Your task to perform on an android device: open the mobile data screen to see how much data has been used Image 0: 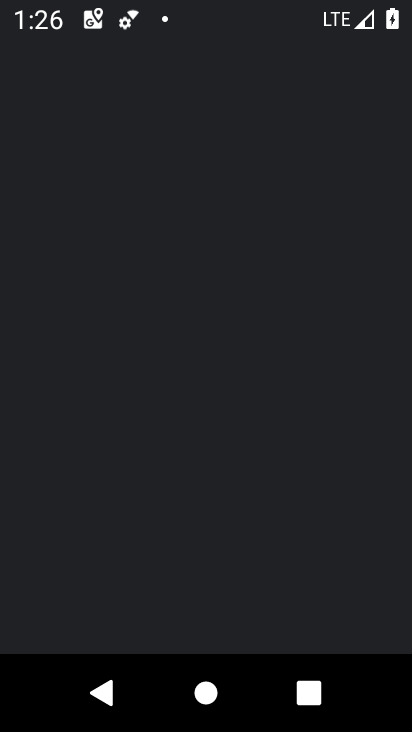
Step 0: drag from (362, 478) to (359, 60)
Your task to perform on an android device: open the mobile data screen to see how much data has been used Image 1: 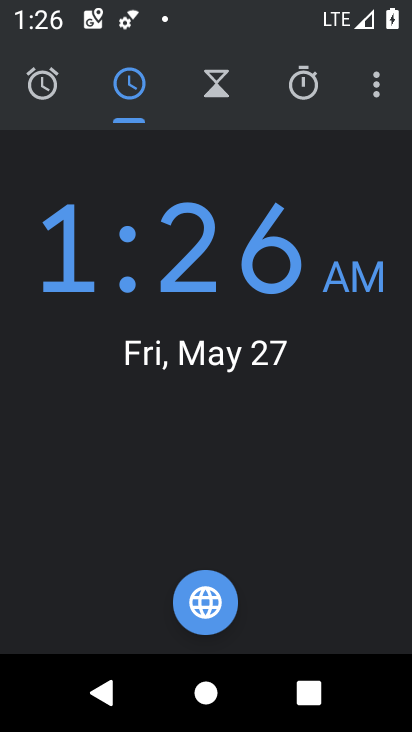
Step 1: press home button
Your task to perform on an android device: open the mobile data screen to see how much data has been used Image 2: 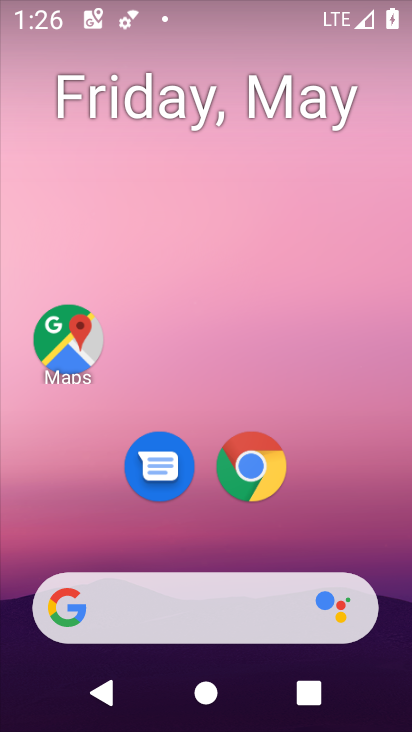
Step 2: drag from (338, 555) to (337, 81)
Your task to perform on an android device: open the mobile data screen to see how much data has been used Image 3: 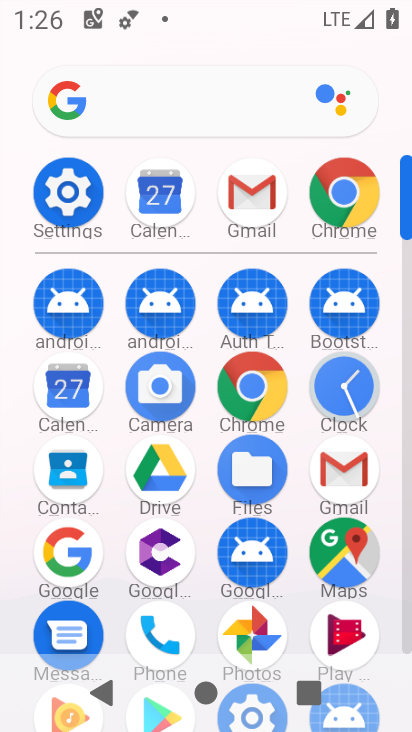
Step 3: click (337, 200)
Your task to perform on an android device: open the mobile data screen to see how much data has been used Image 4: 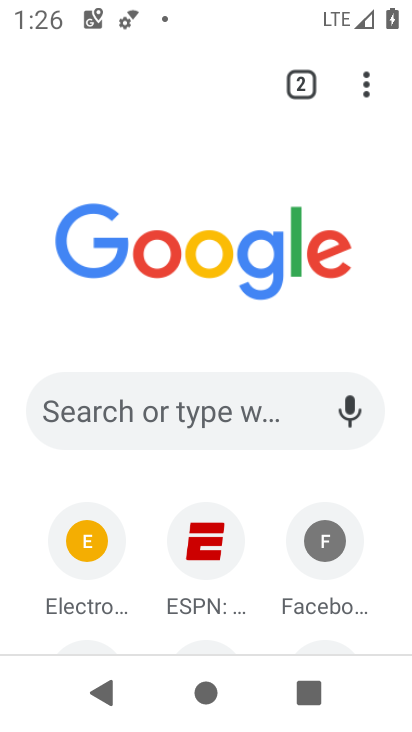
Step 4: press back button
Your task to perform on an android device: open the mobile data screen to see how much data has been used Image 5: 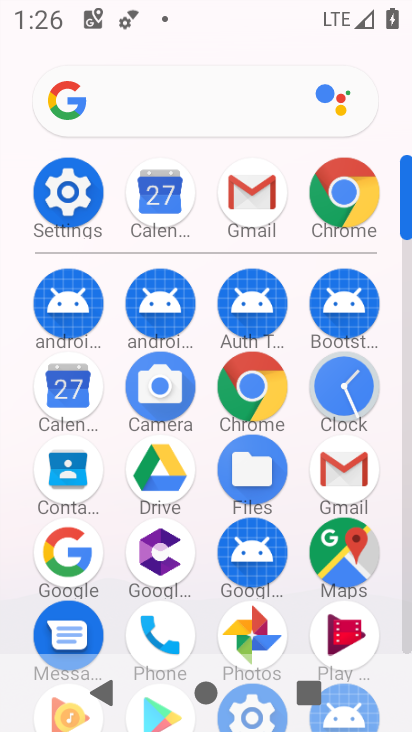
Step 5: click (89, 196)
Your task to perform on an android device: open the mobile data screen to see how much data has been used Image 6: 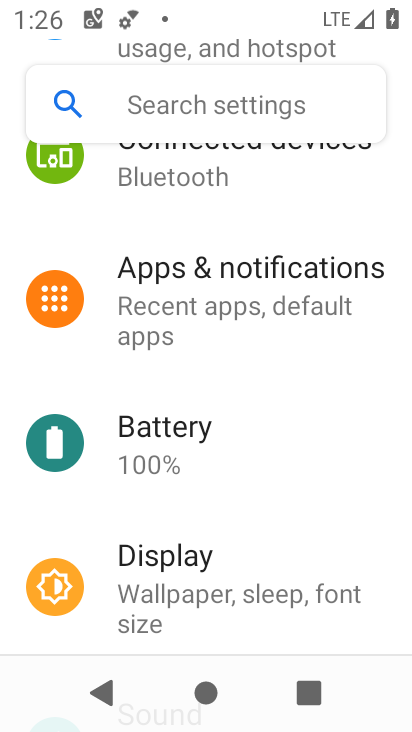
Step 6: drag from (203, 274) to (235, 613)
Your task to perform on an android device: open the mobile data screen to see how much data has been used Image 7: 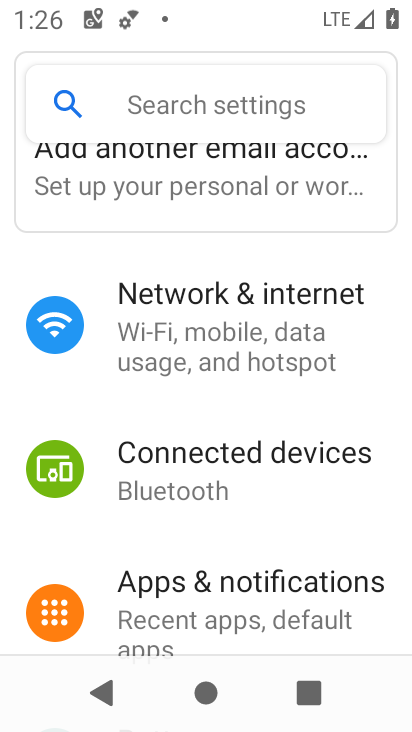
Step 7: click (229, 308)
Your task to perform on an android device: open the mobile data screen to see how much data has been used Image 8: 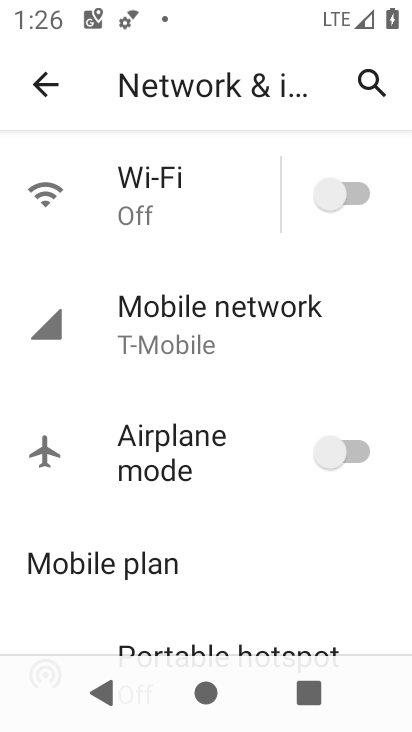
Step 8: click (210, 319)
Your task to perform on an android device: open the mobile data screen to see how much data has been used Image 9: 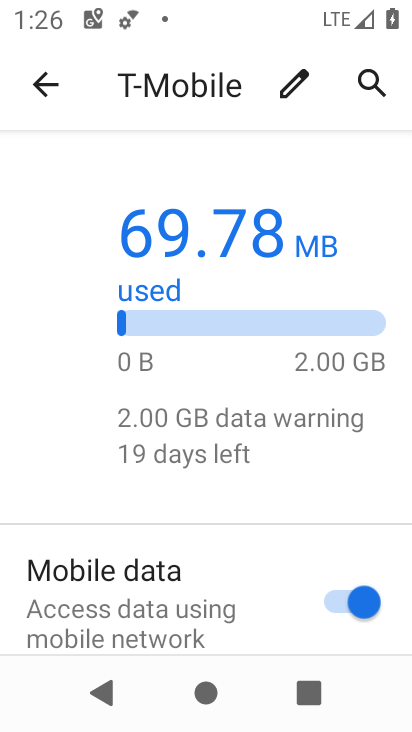
Step 9: task complete